Your task to perform on an android device: turn off translation in the chrome app Image 0: 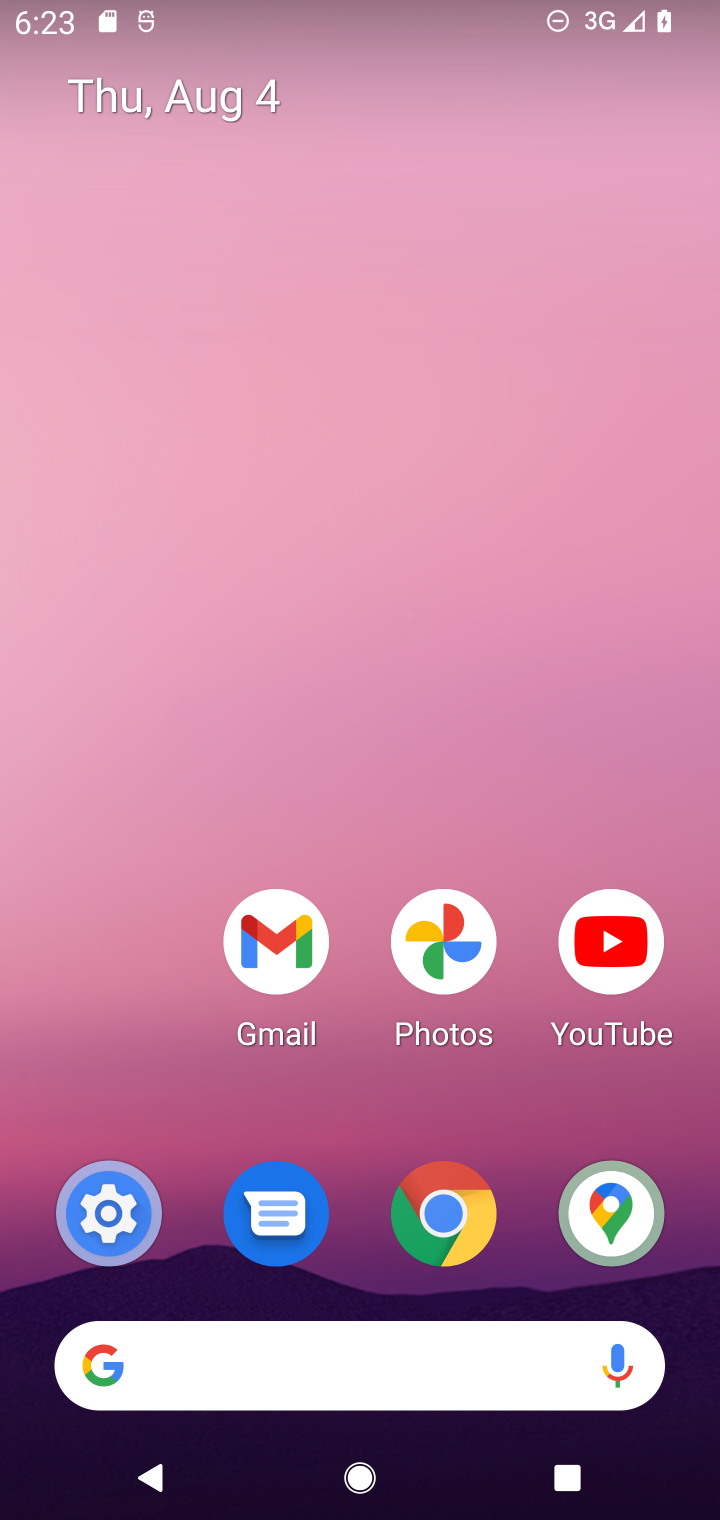
Step 0: press home button
Your task to perform on an android device: turn off translation in the chrome app Image 1: 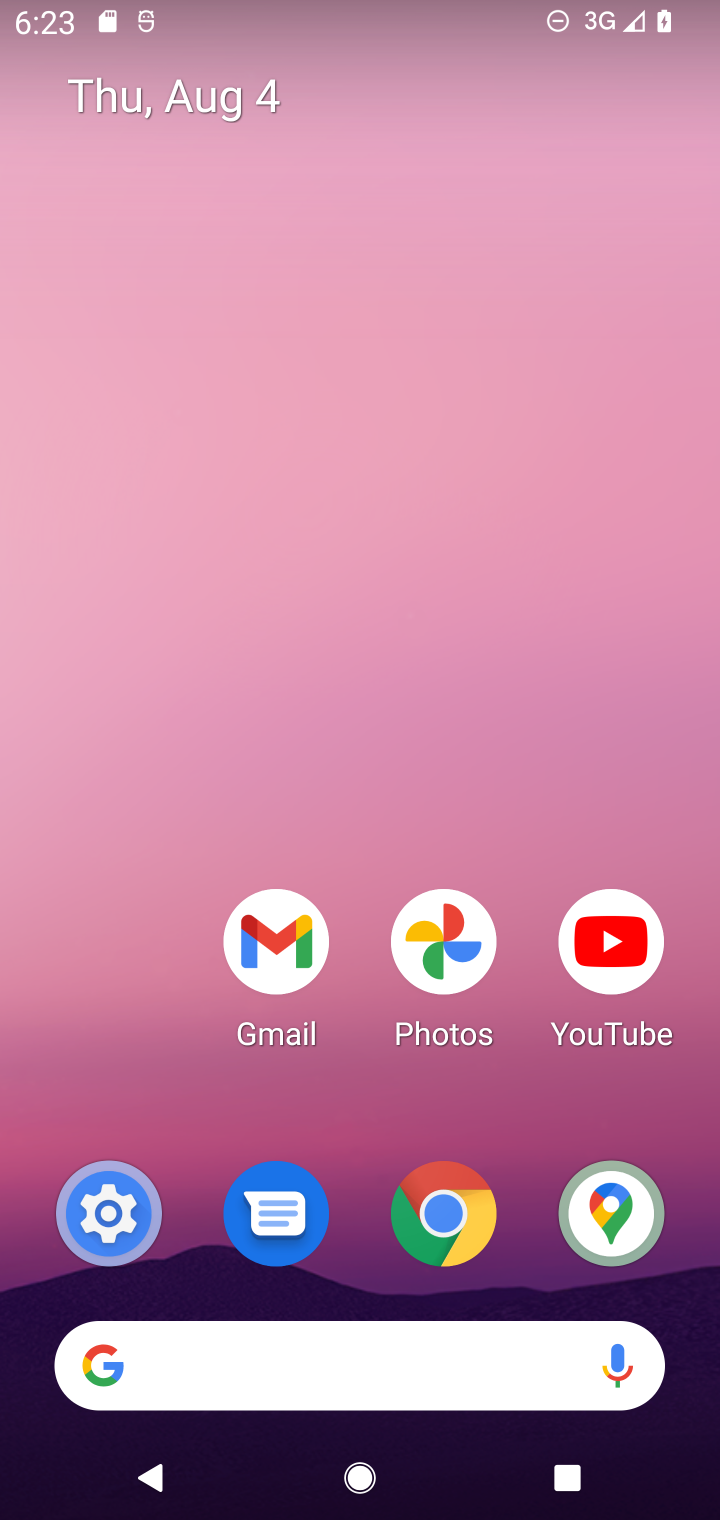
Step 1: drag from (68, 979) to (78, 314)
Your task to perform on an android device: turn off translation in the chrome app Image 2: 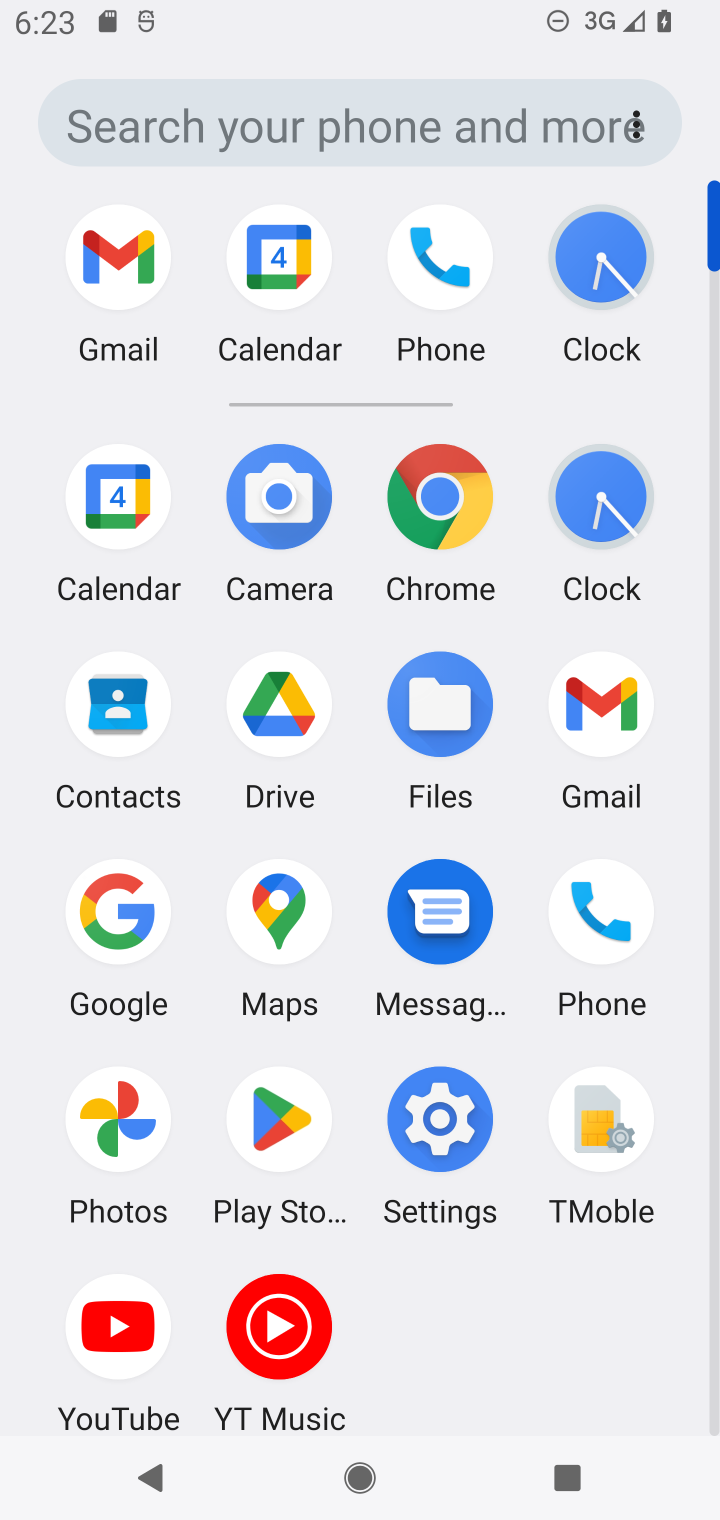
Step 2: click (463, 504)
Your task to perform on an android device: turn off translation in the chrome app Image 3: 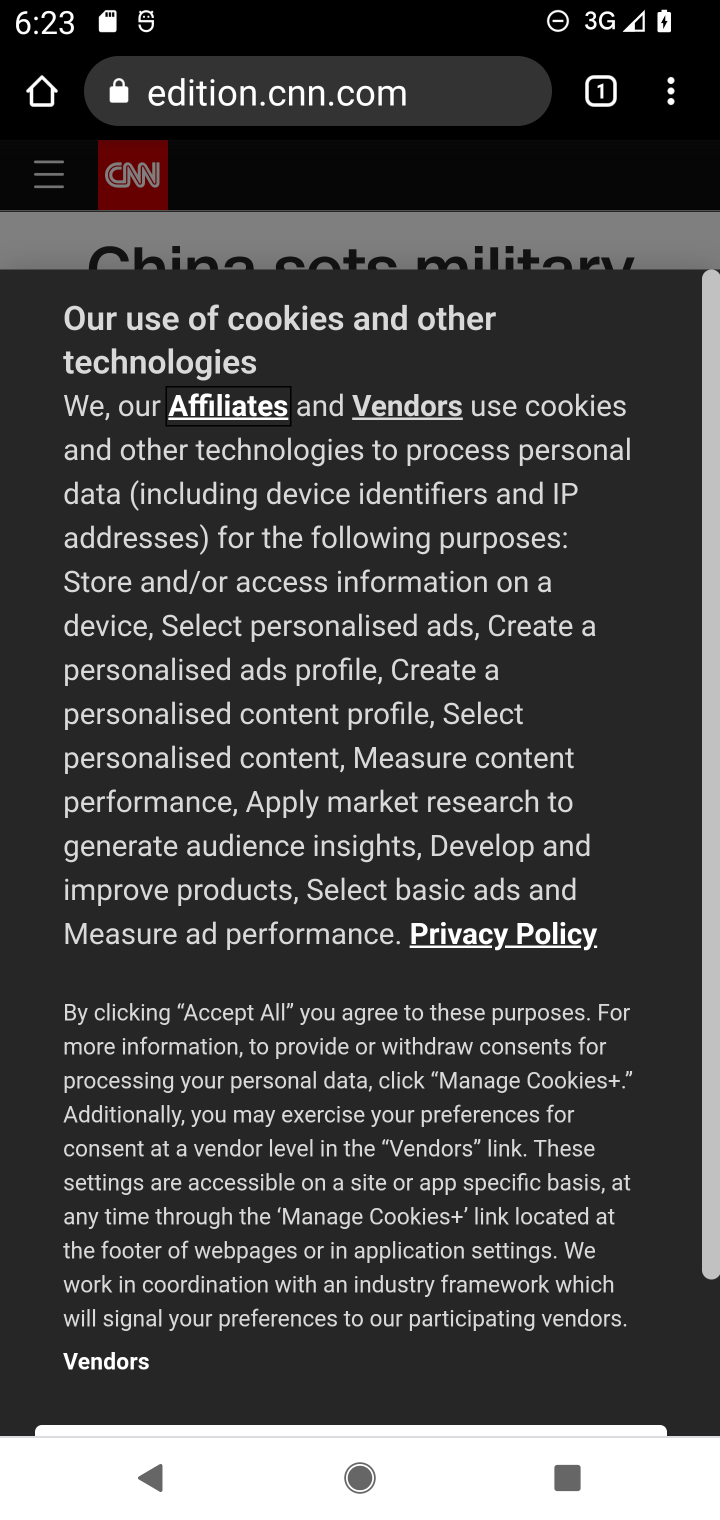
Step 3: click (673, 102)
Your task to perform on an android device: turn off translation in the chrome app Image 4: 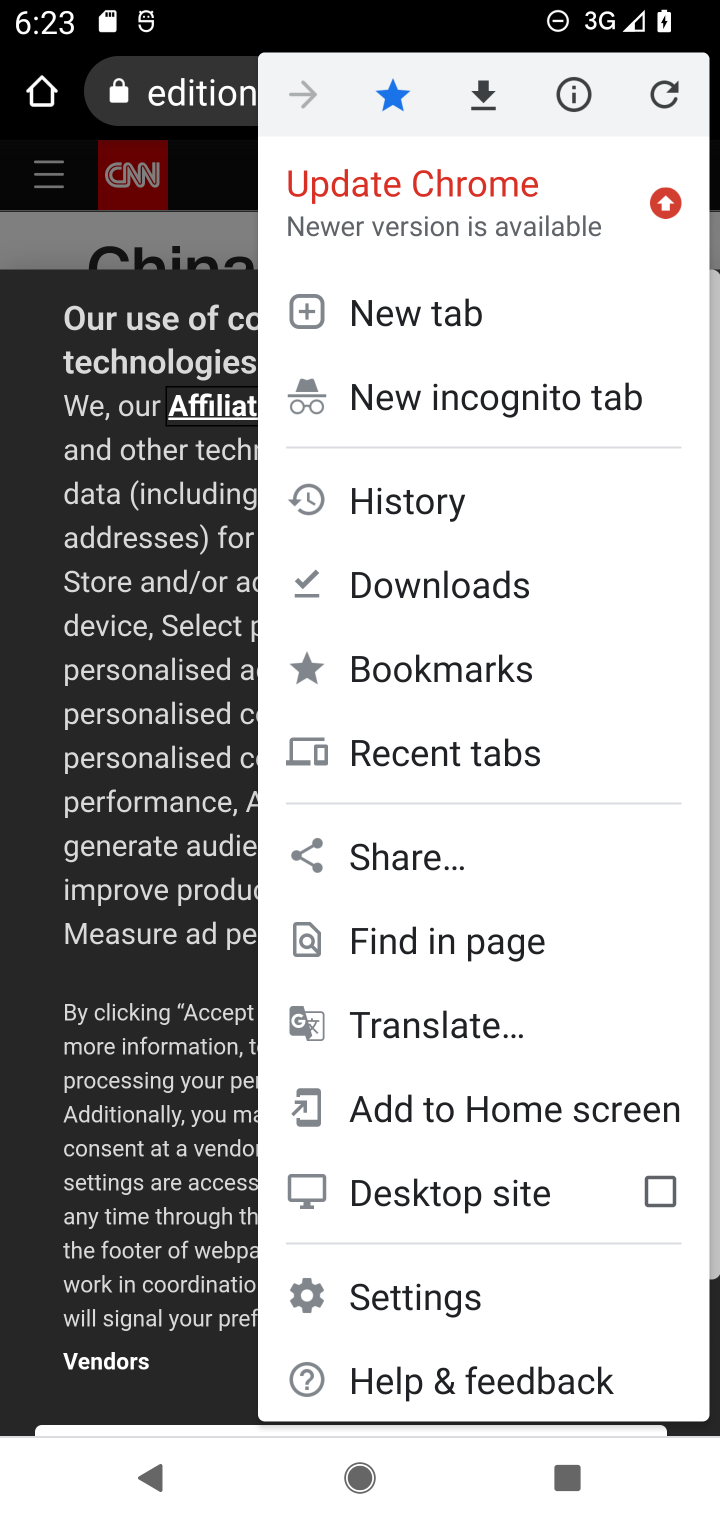
Step 4: drag from (603, 1015) to (609, 732)
Your task to perform on an android device: turn off translation in the chrome app Image 5: 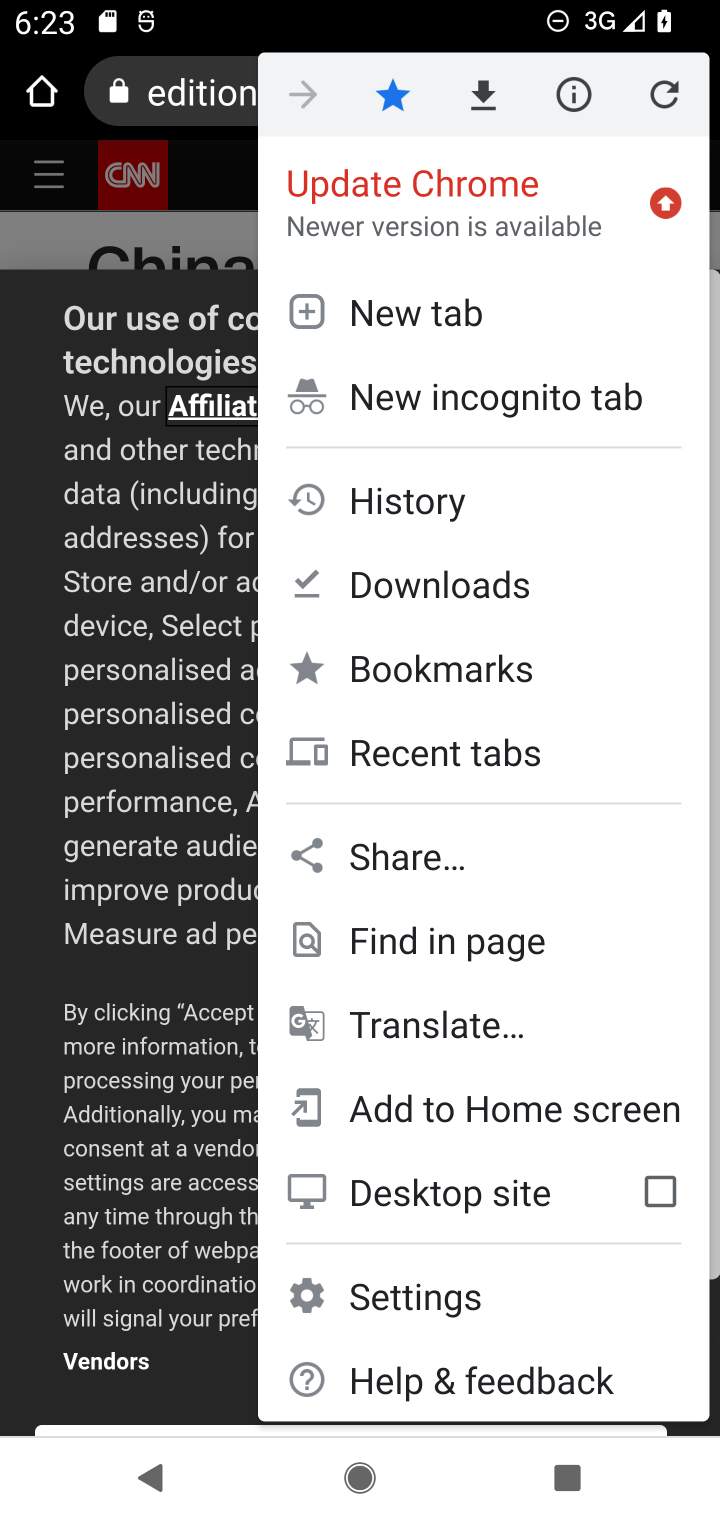
Step 5: click (481, 1293)
Your task to perform on an android device: turn off translation in the chrome app Image 6: 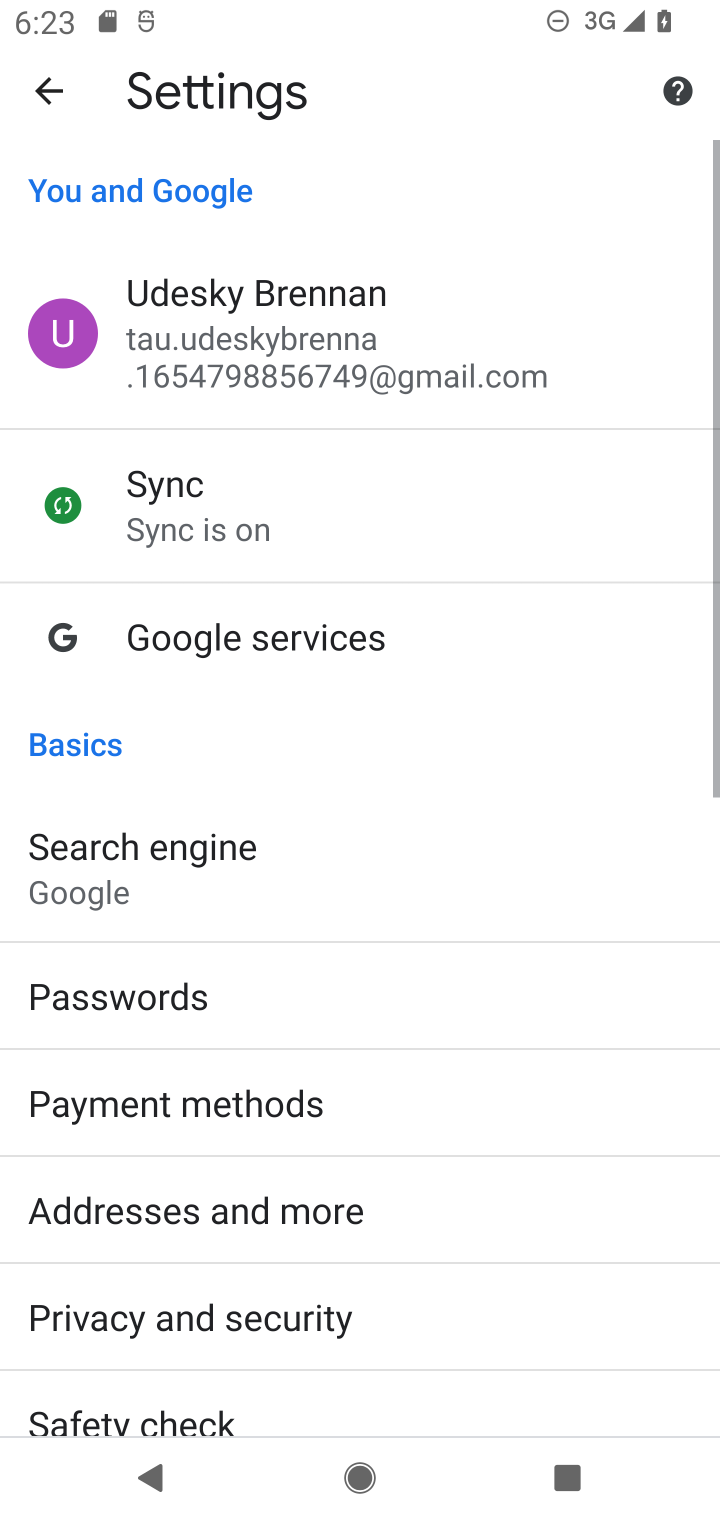
Step 6: drag from (507, 1236) to (524, 900)
Your task to perform on an android device: turn off translation in the chrome app Image 7: 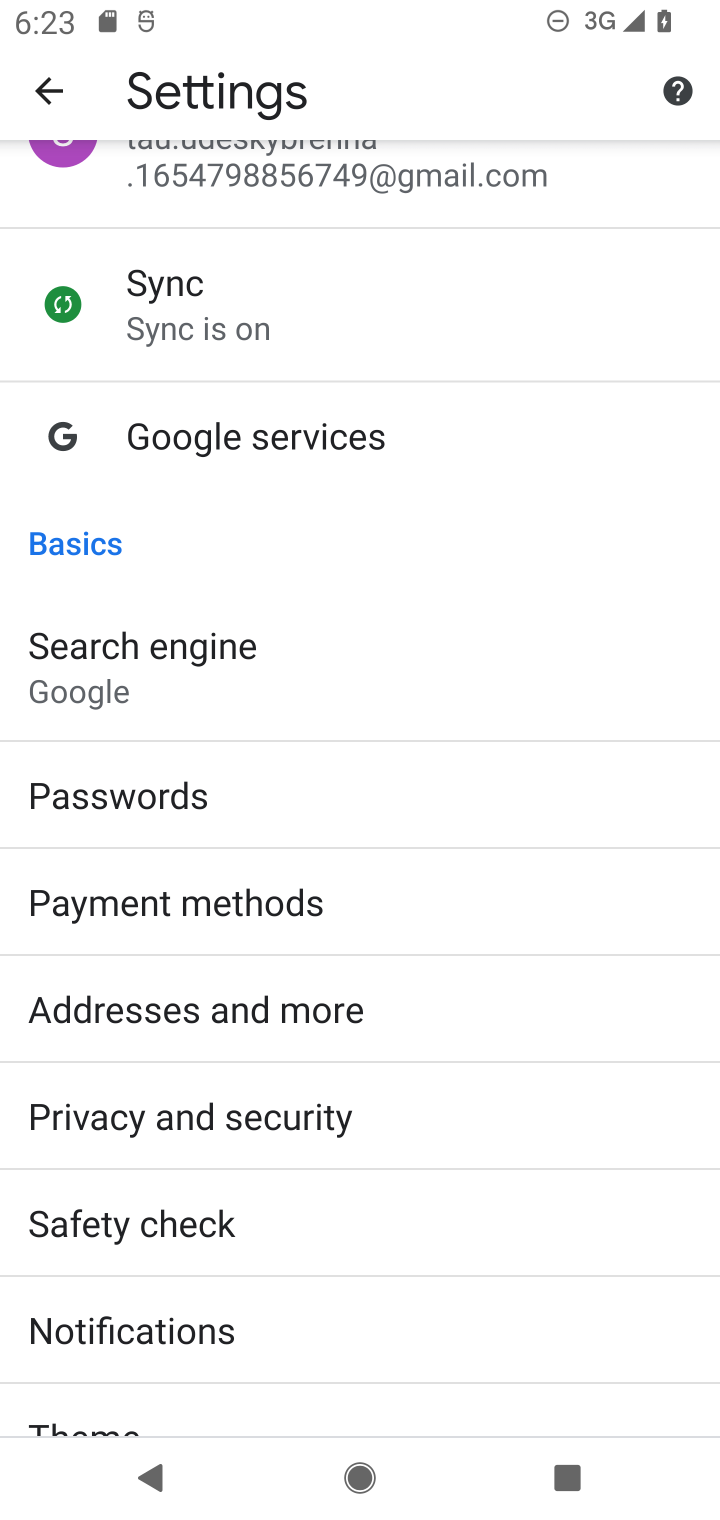
Step 7: drag from (524, 1202) to (526, 866)
Your task to perform on an android device: turn off translation in the chrome app Image 8: 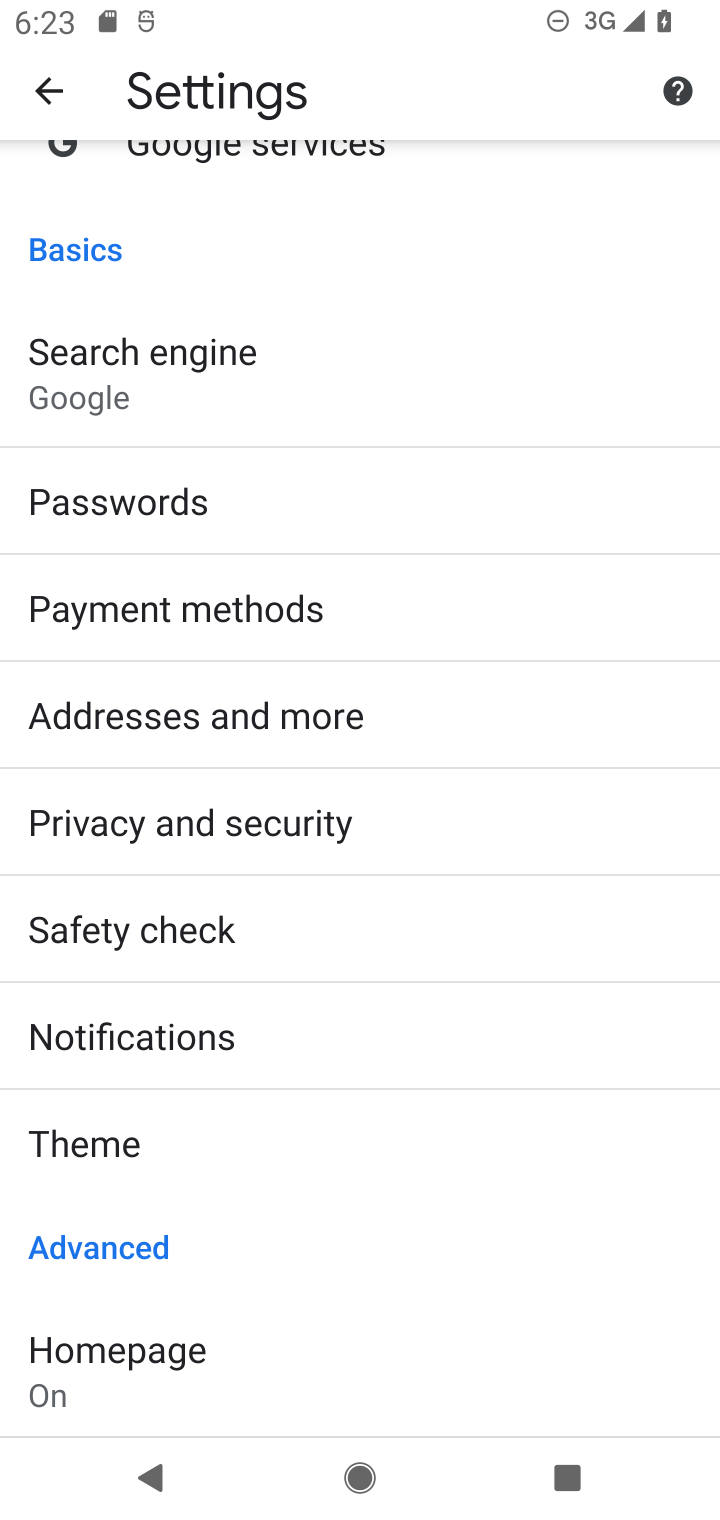
Step 8: drag from (549, 1153) to (517, 715)
Your task to perform on an android device: turn off translation in the chrome app Image 9: 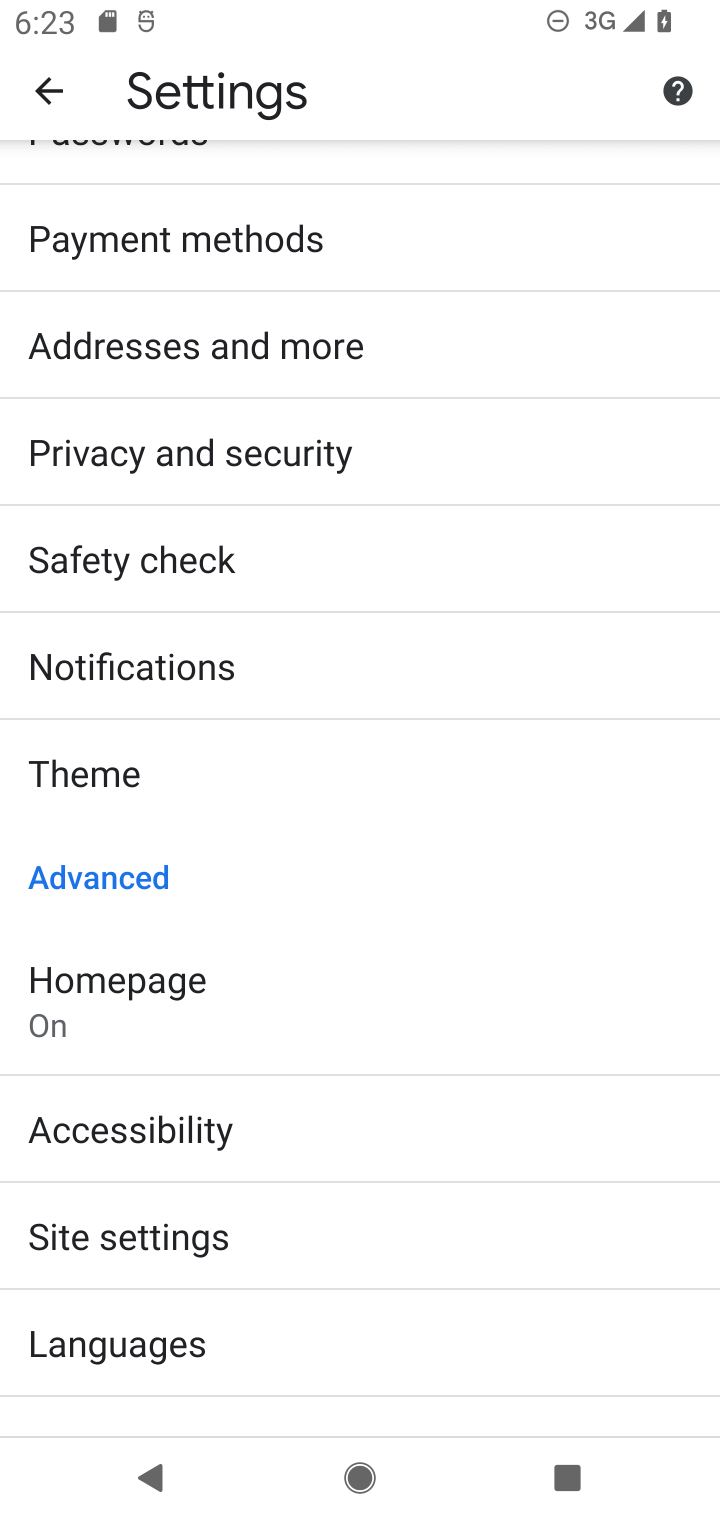
Step 9: drag from (489, 1178) to (487, 771)
Your task to perform on an android device: turn off translation in the chrome app Image 10: 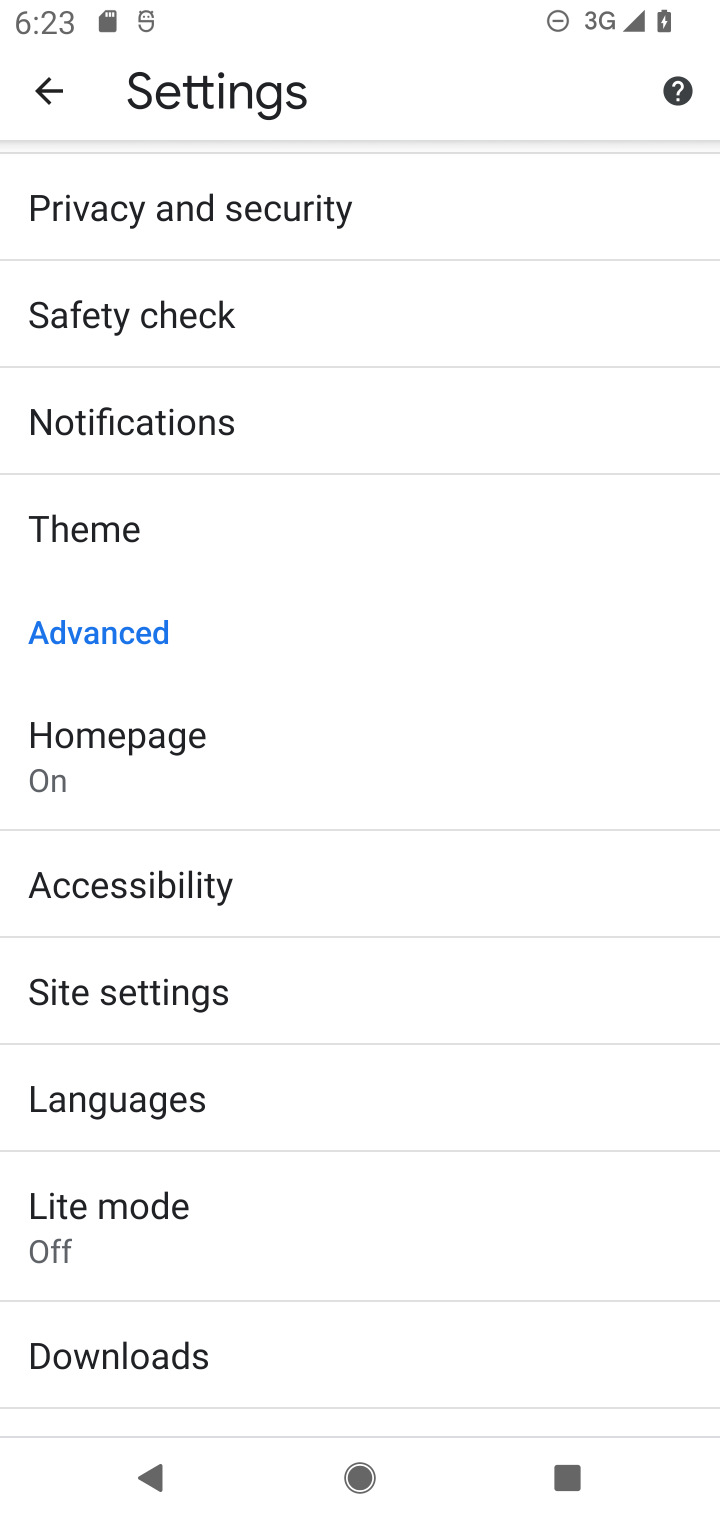
Step 10: drag from (490, 1208) to (499, 738)
Your task to perform on an android device: turn off translation in the chrome app Image 11: 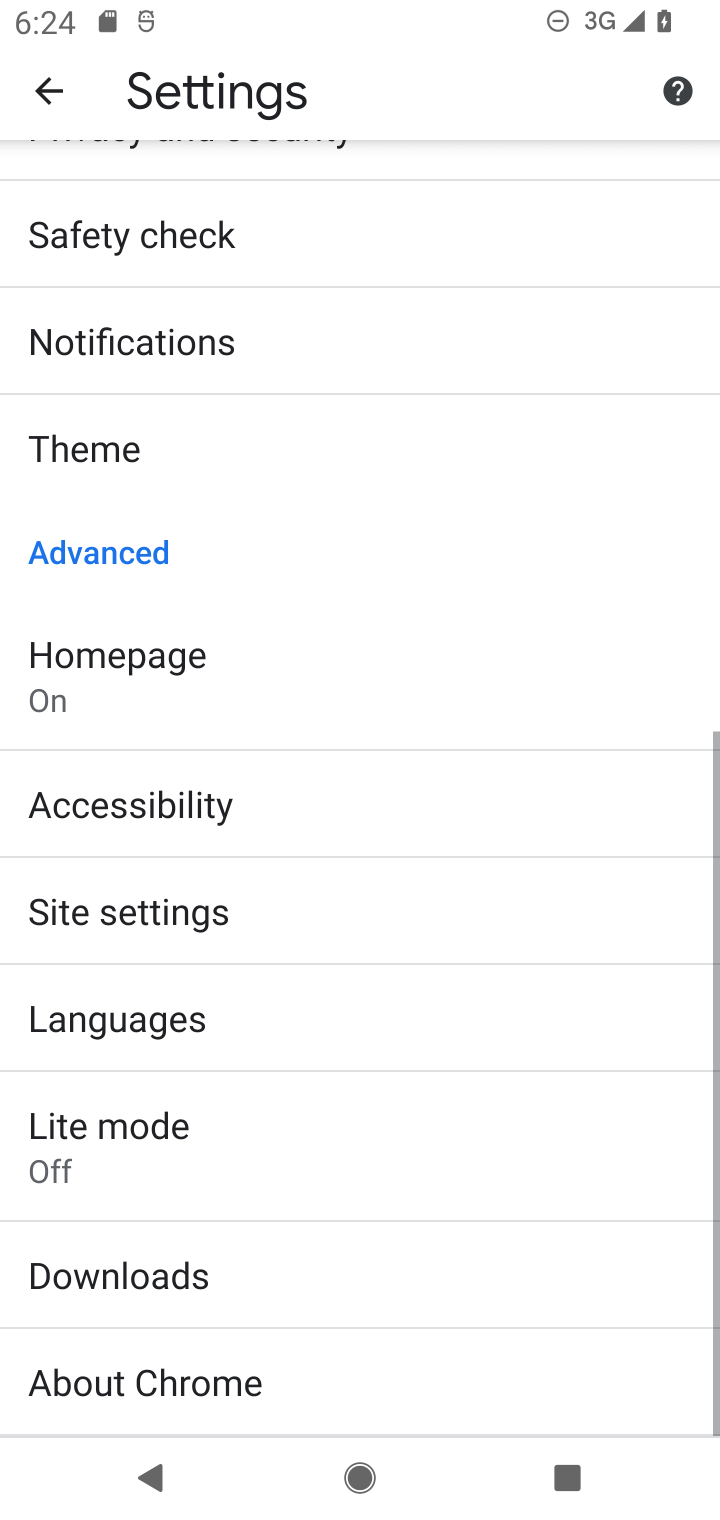
Step 11: drag from (527, 615) to (529, 843)
Your task to perform on an android device: turn off translation in the chrome app Image 12: 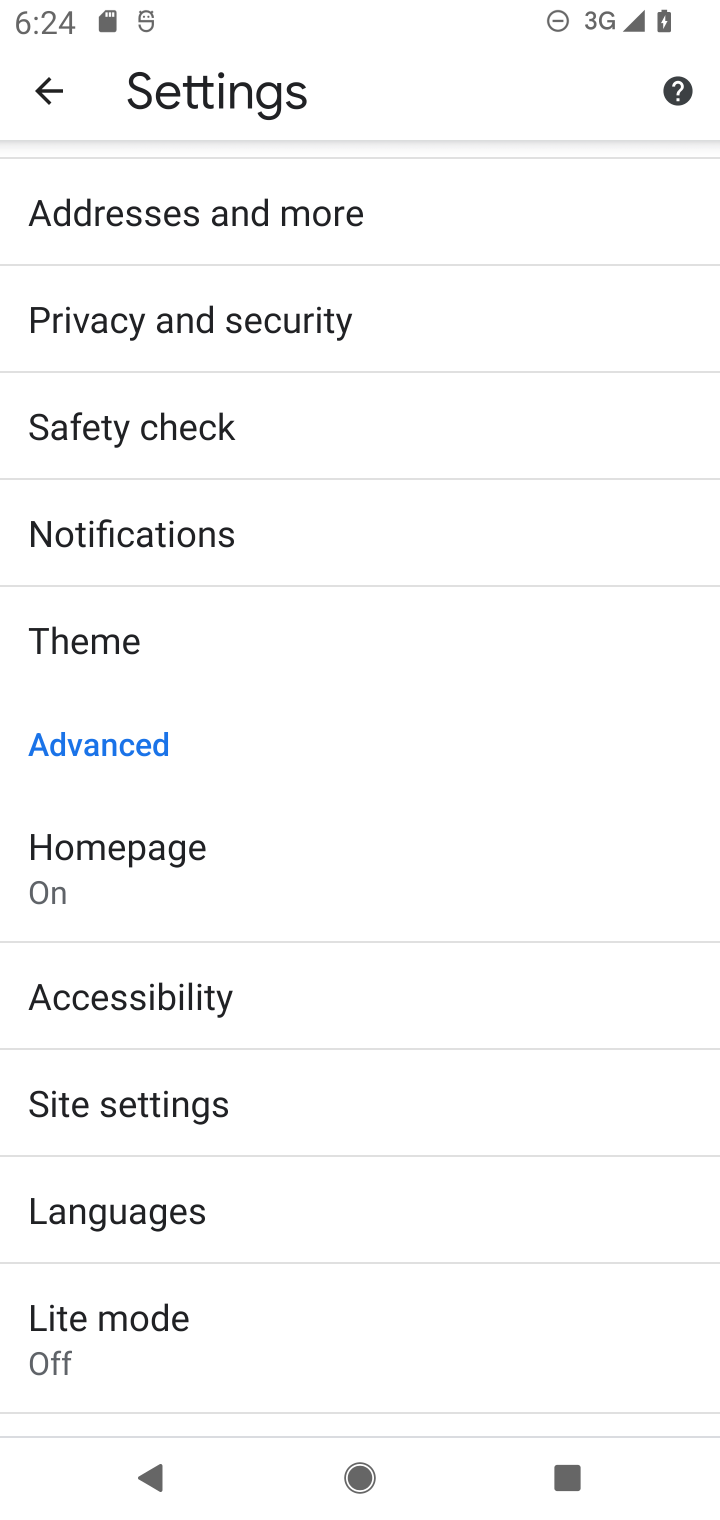
Step 12: click (522, 1237)
Your task to perform on an android device: turn off translation in the chrome app Image 13: 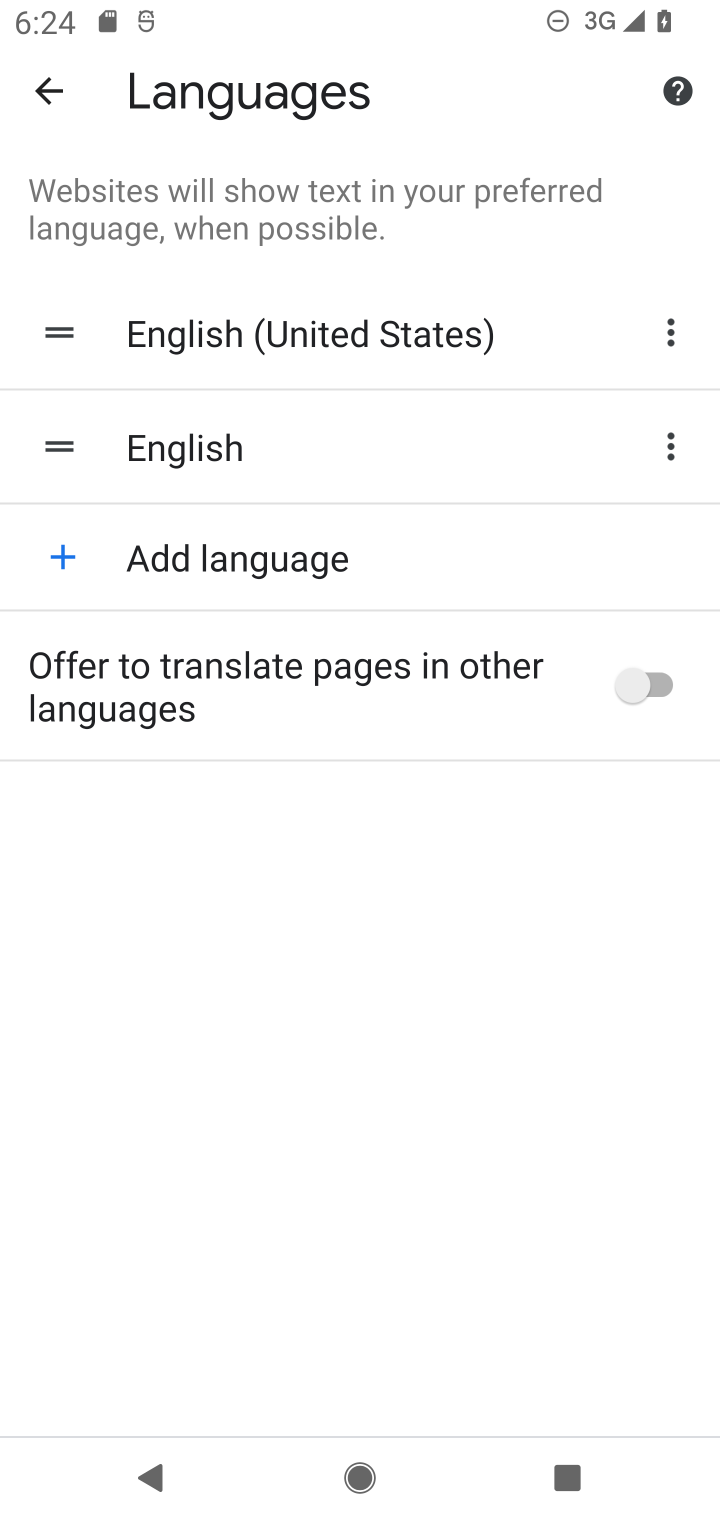
Step 13: task complete